Your task to perform on an android device: delete location history Image 0: 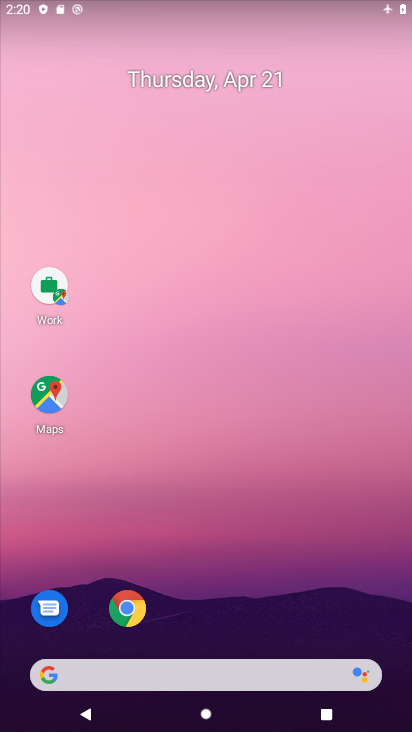
Step 0: drag from (281, 482) to (218, 136)
Your task to perform on an android device: delete location history Image 1: 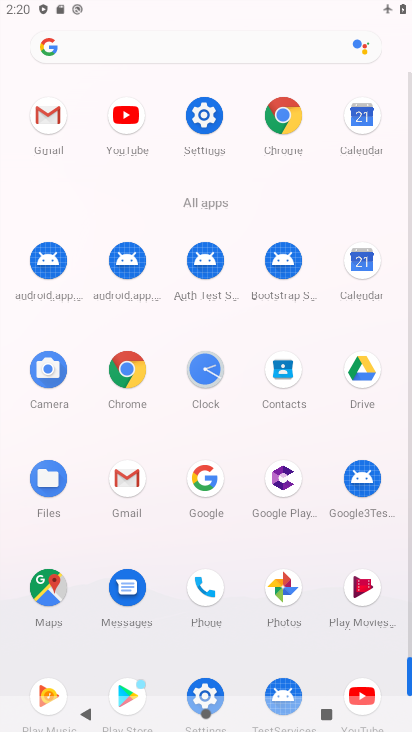
Step 1: click (59, 589)
Your task to perform on an android device: delete location history Image 2: 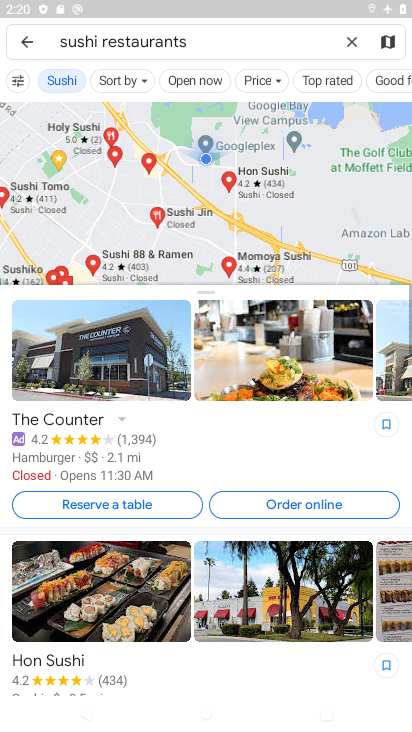
Step 2: click (24, 32)
Your task to perform on an android device: delete location history Image 3: 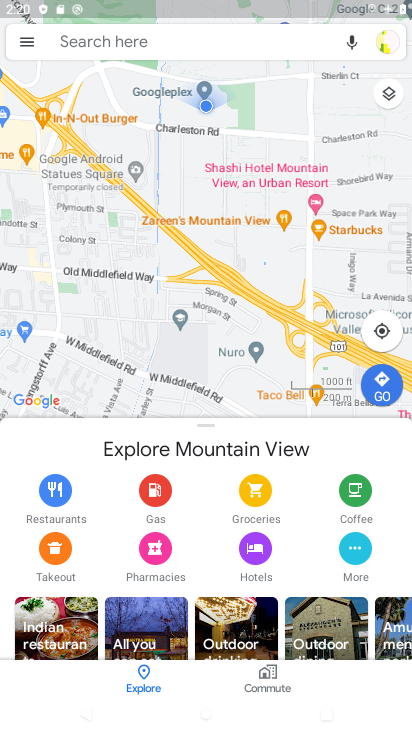
Step 3: click (28, 45)
Your task to perform on an android device: delete location history Image 4: 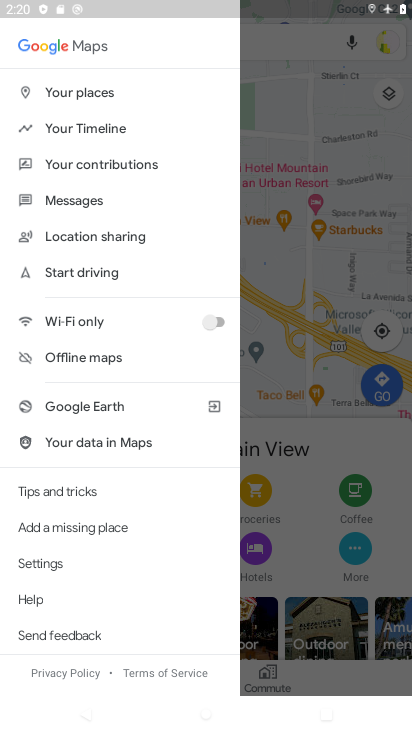
Step 4: drag from (140, 581) to (132, 262)
Your task to perform on an android device: delete location history Image 5: 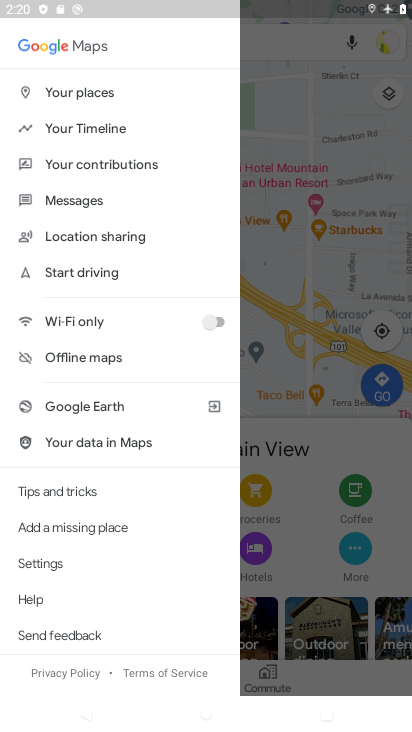
Step 5: drag from (139, 331) to (167, 579)
Your task to perform on an android device: delete location history Image 6: 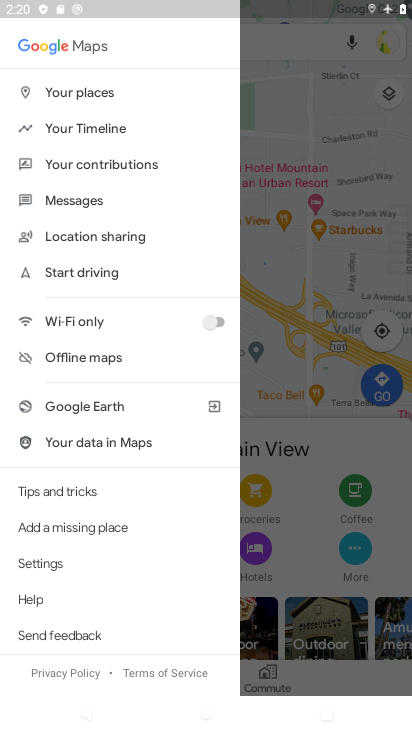
Step 6: drag from (109, 224) to (169, 622)
Your task to perform on an android device: delete location history Image 7: 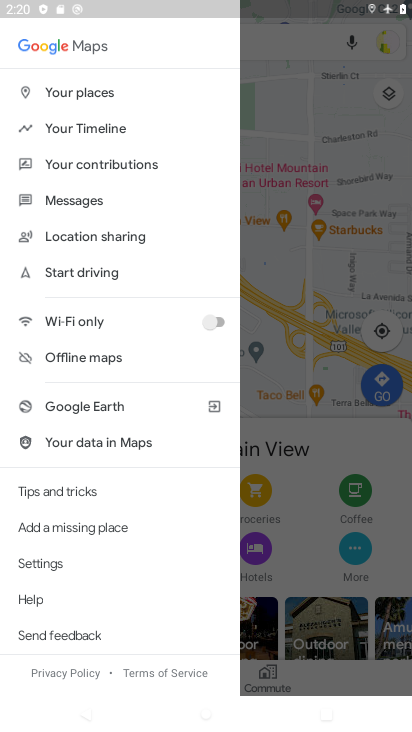
Step 7: drag from (93, 109) to (23, 657)
Your task to perform on an android device: delete location history Image 8: 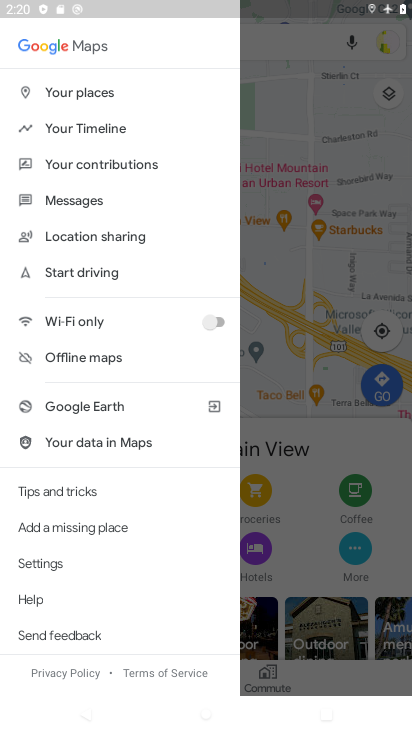
Step 8: click (88, 131)
Your task to perform on an android device: delete location history Image 9: 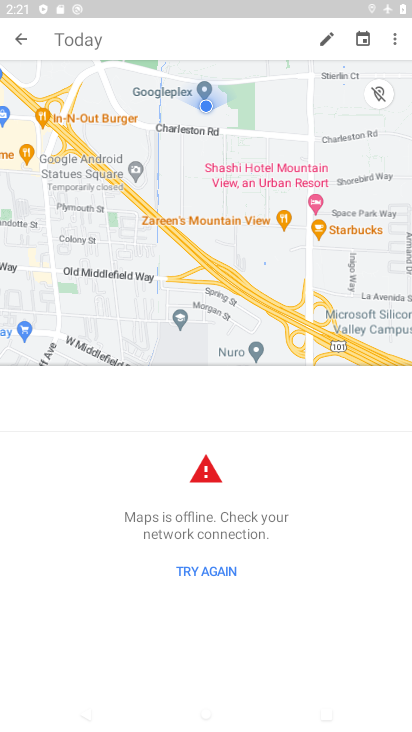
Step 9: click (218, 570)
Your task to perform on an android device: delete location history Image 10: 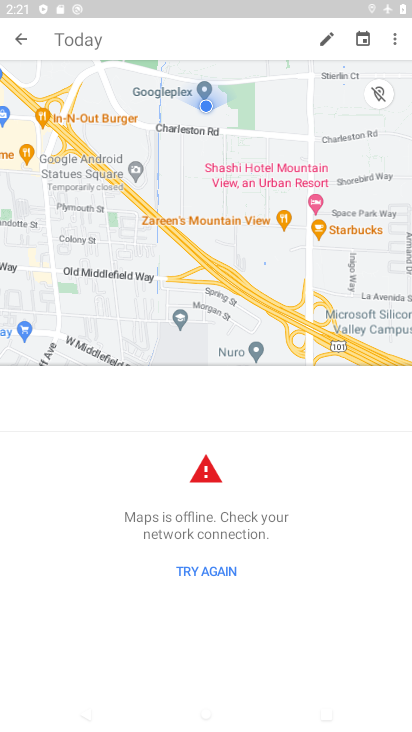
Step 10: task complete